Your task to perform on an android device: Go to Wikipedia Image 0: 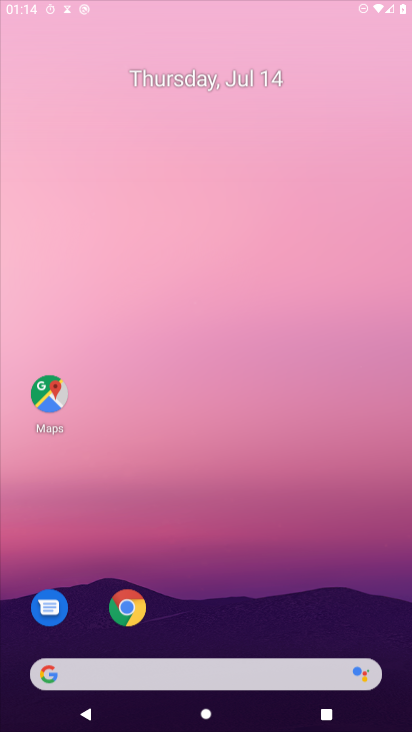
Step 0: press home button
Your task to perform on an android device: Go to Wikipedia Image 1: 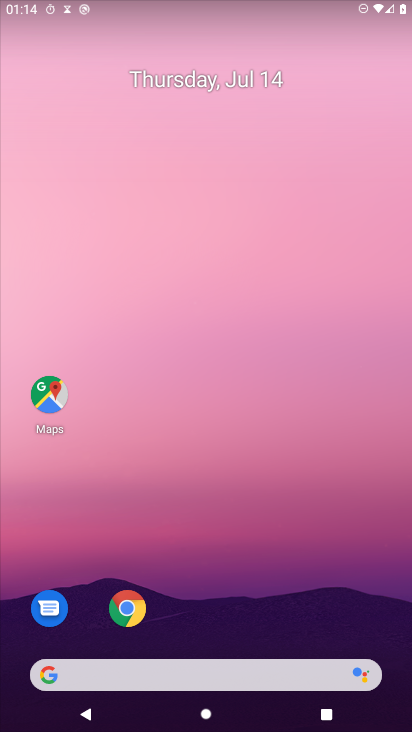
Step 1: click (42, 677)
Your task to perform on an android device: Go to Wikipedia Image 2: 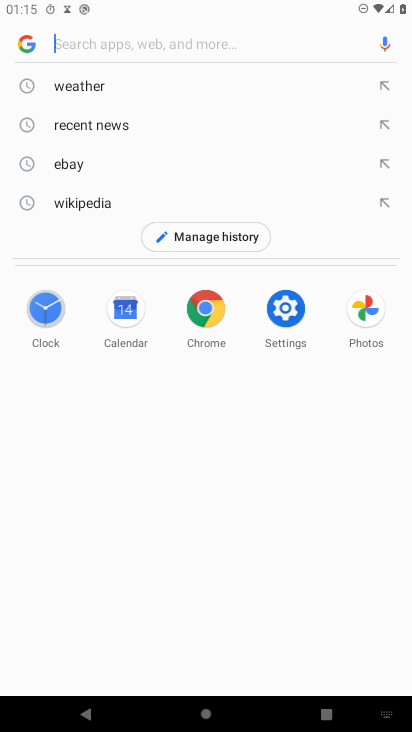
Step 2: click (96, 198)
Your task to perform on an android device: Go to Wikipedia Image 3: 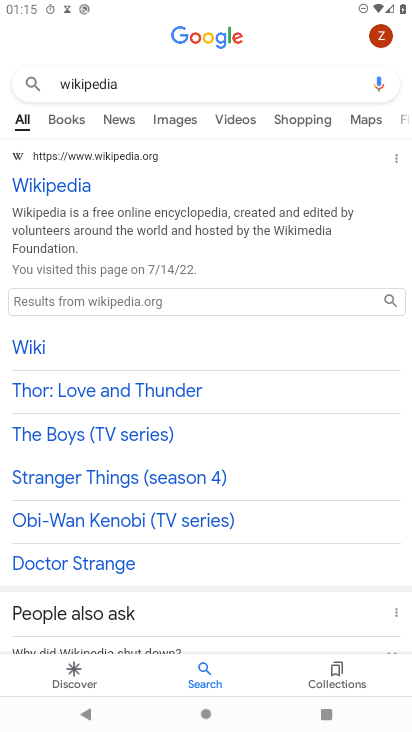
Step 3: click (64, 182)
Your task to perform on an android device: Go to Wikipedia Image 4: 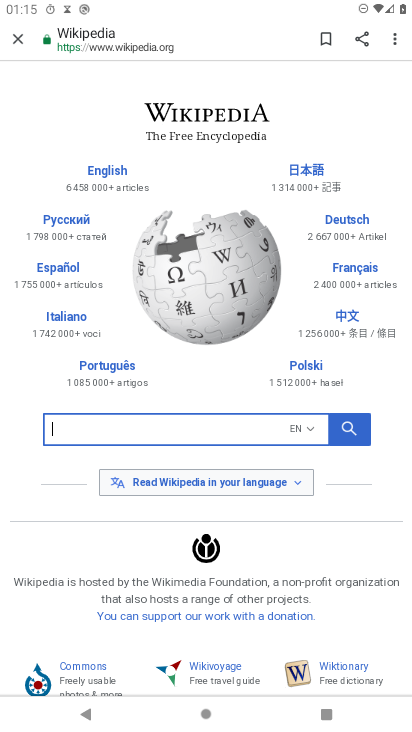
Step 4: task complete